Your task to perform on an android device: turn off sleep mode Image 0: 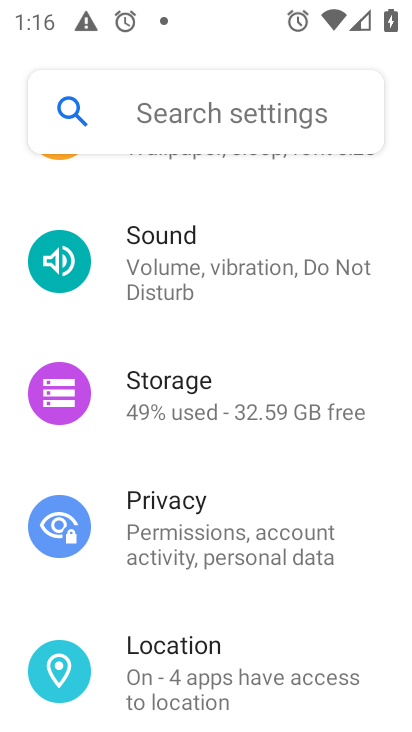
Step 0: drag from (239, 642) to (280, 289)
Your task to perform on an android device: turn off sleep mode Image 1: 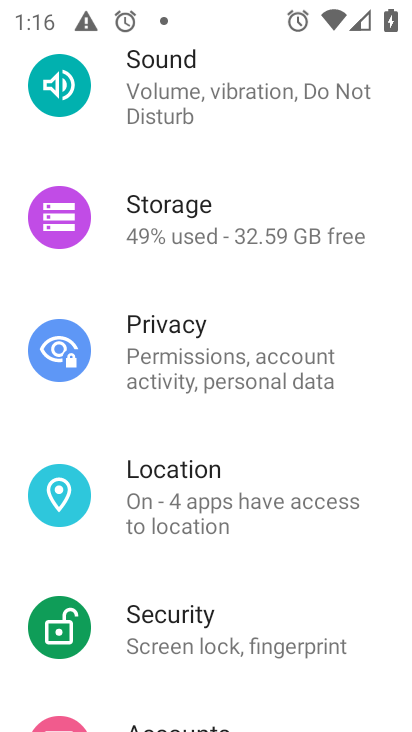
Step 1: drag from (201, 668) to (210, 290)
Your task to perform on an android device: turn off sleep mode Image 2: 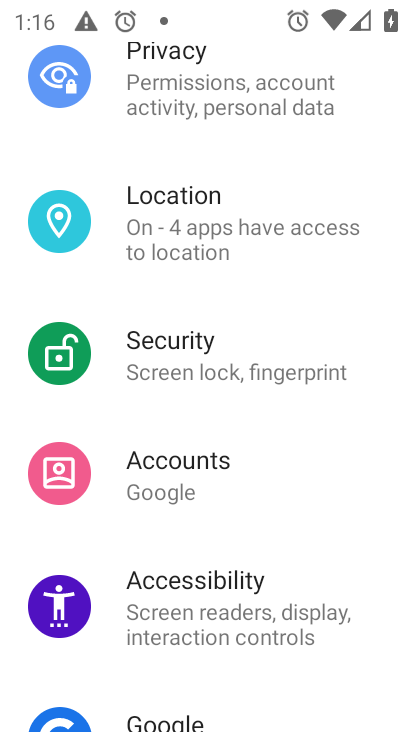
Step 2: drag from (210, 150) to (226, 379)
Your task to perform on an android device: turn off sleep mode Image 3: 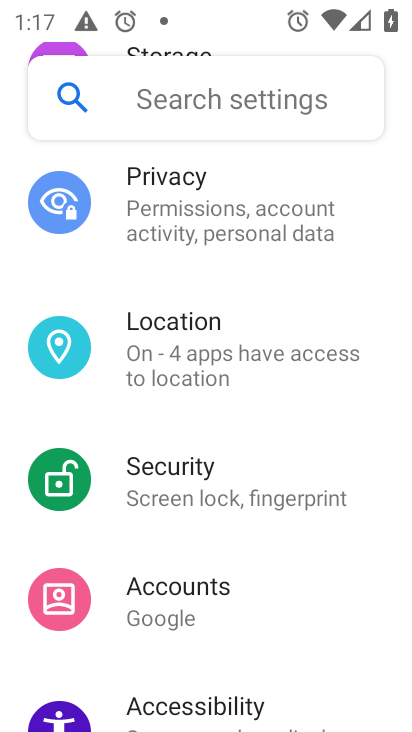
Step 3: drag from (174, 216) to (167, 629)
Your task to perform on an android device: turn off sleep mode Image 4: 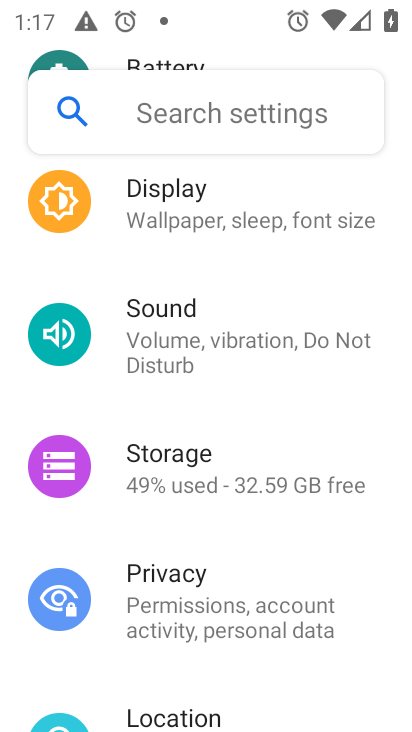
Step 4: click (288, 222)
Your task to perform on an android device: turn off sleep mode Image 5: 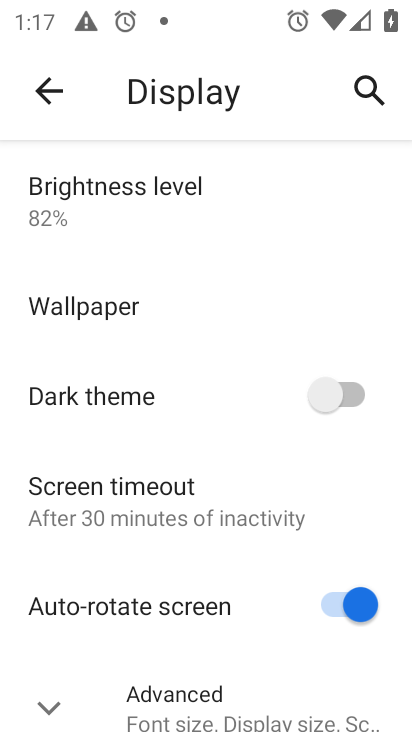
Step 5: task complete